Your task to perform on an android device: install app "Contacts" Image 0: 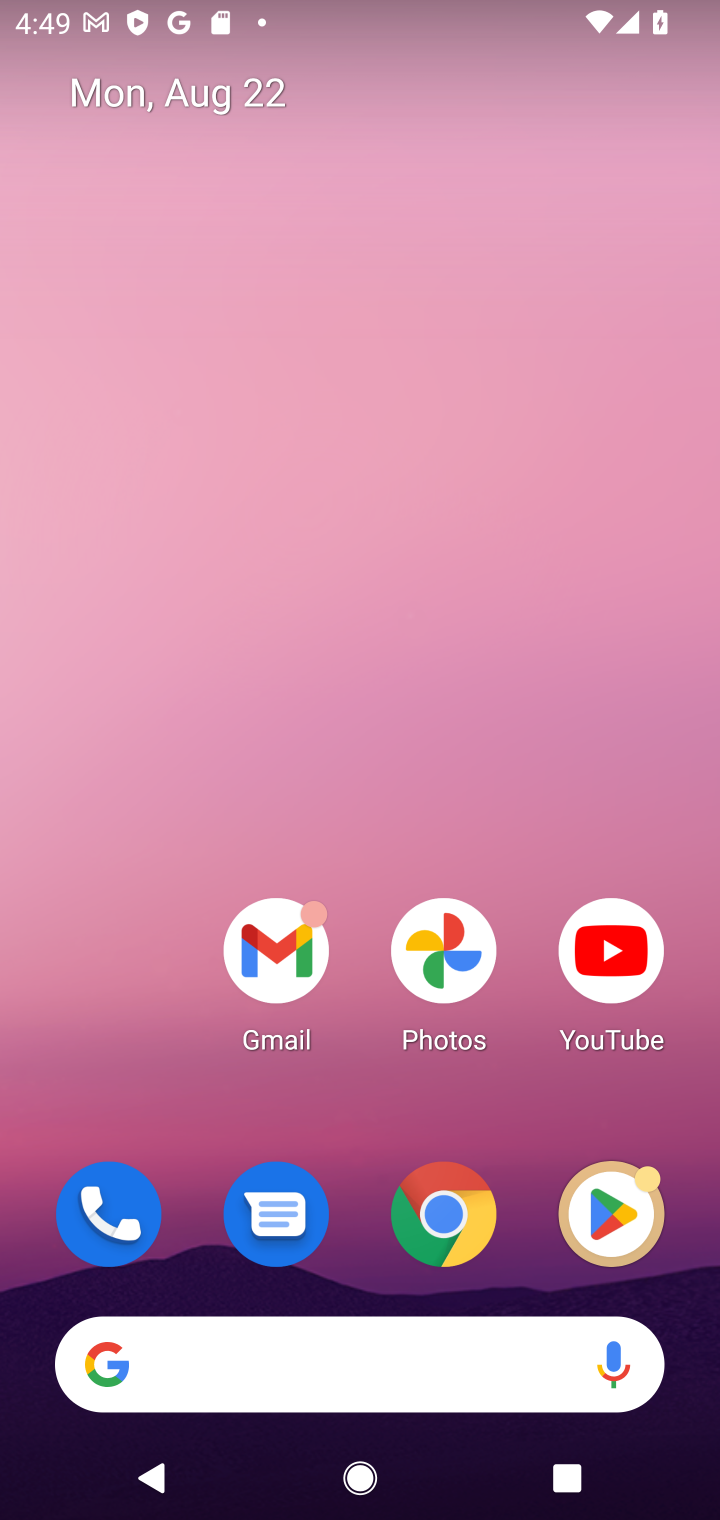
Step 0: click (612, 1219)
Your task to perform on an android device: install app "Contacts" Image 1: 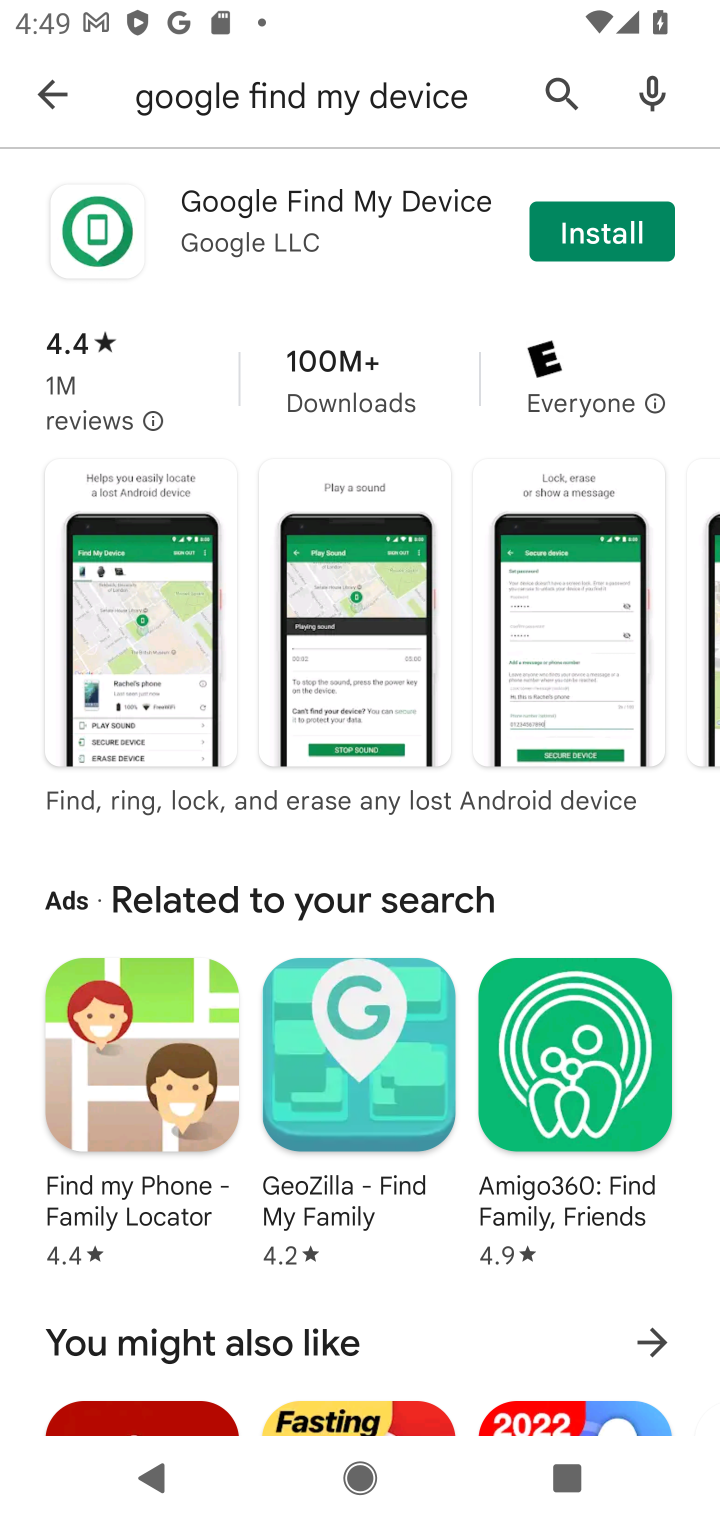
Step 1: click (557, 93)
Your task to perform on an android device: install app "Contacts" Image 2: 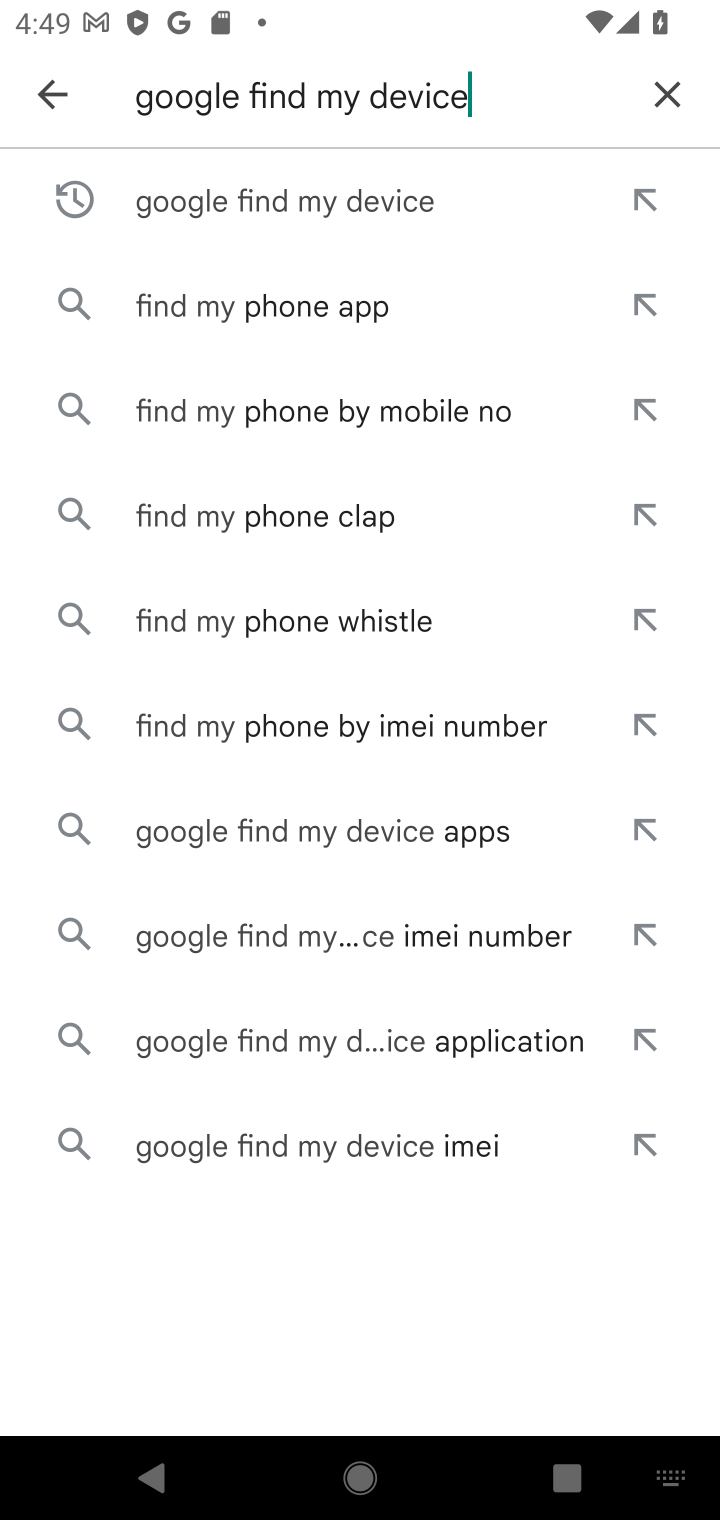
Step 2: click (663, 88)
Your task to perform on an android device: install app "Contacts" Image 3: 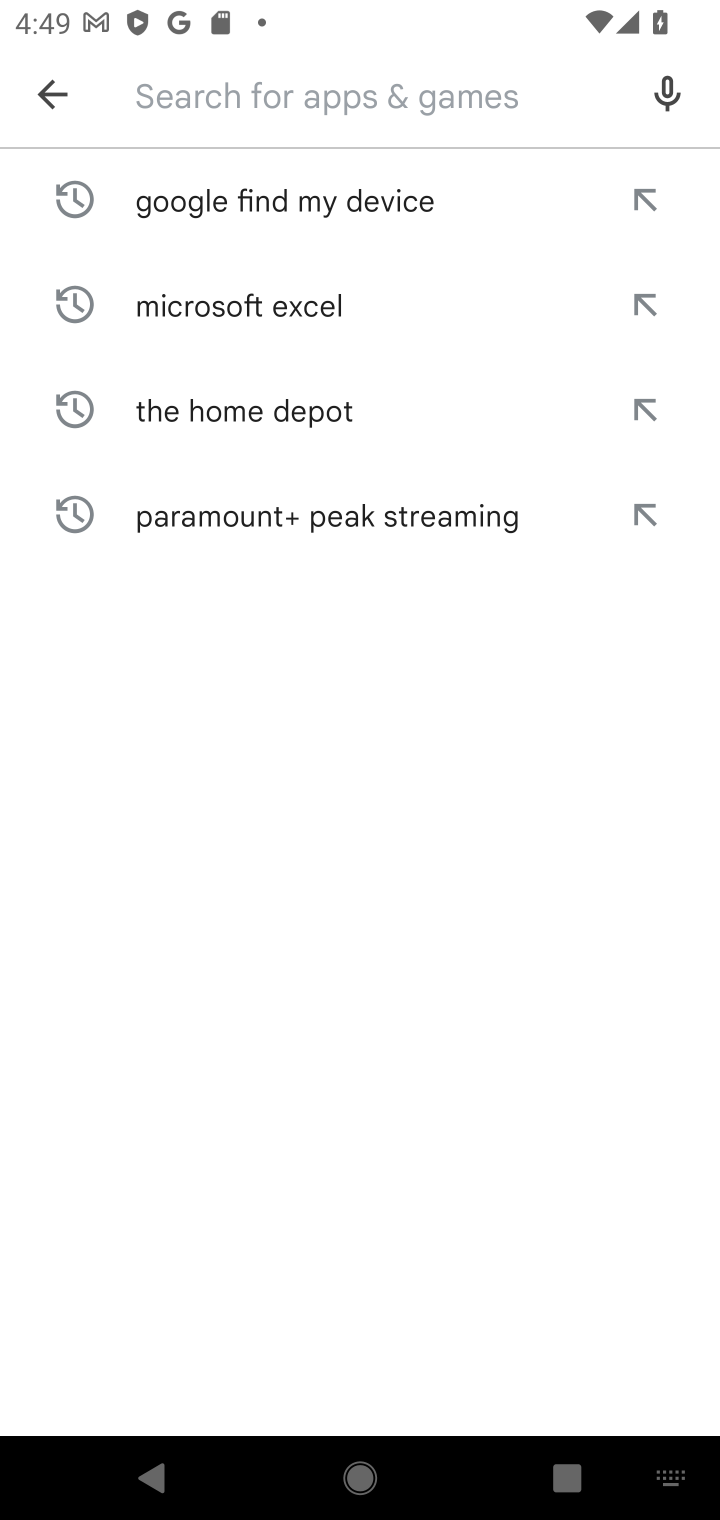
Step 3: type "contacts"
Your task to perform on an android device: install app "Contacts" Image 4: 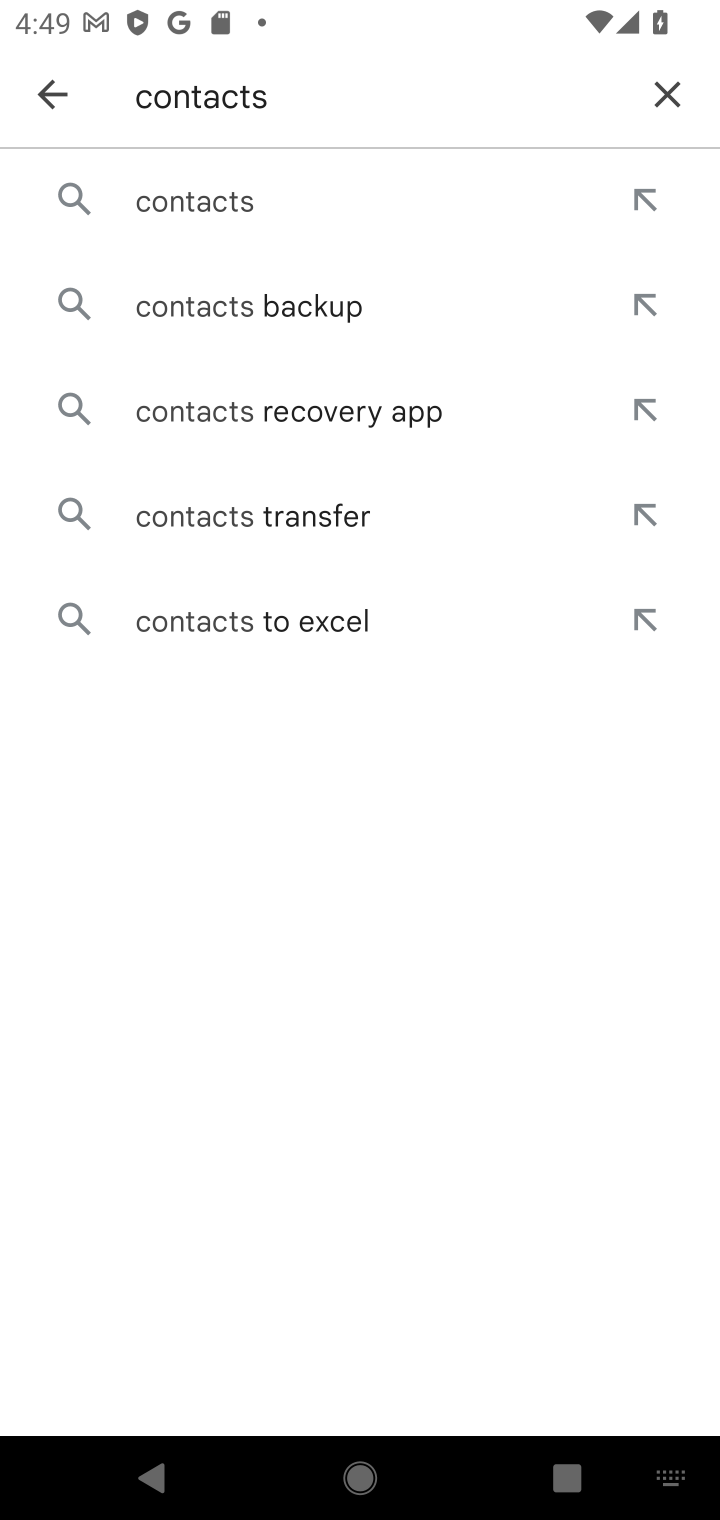
Step 4: click (208, 208)
Your task to perform on an android device: install app "Contacts" Image 5: 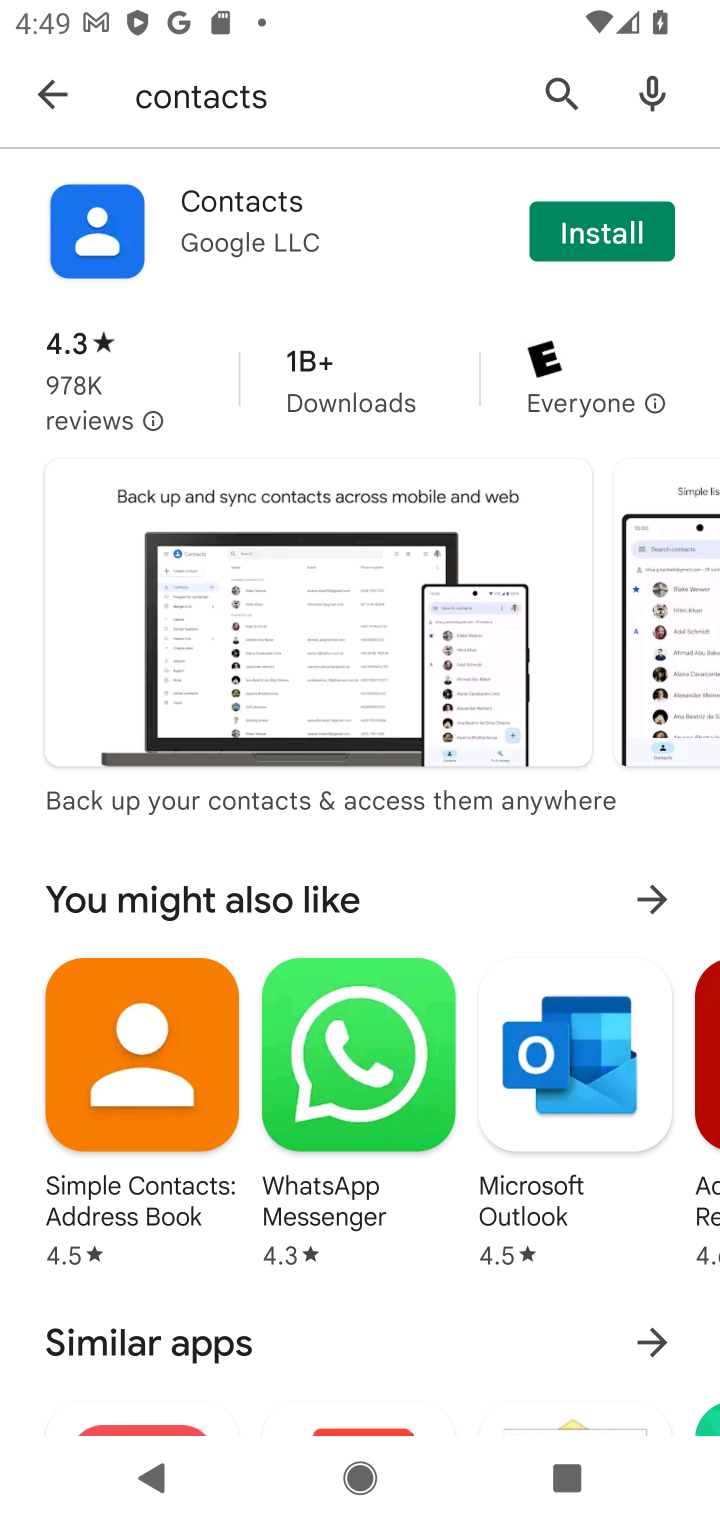
Step 5: click (595, 233)
Your task to perform on an android device: install app "Contacts" Image 6: 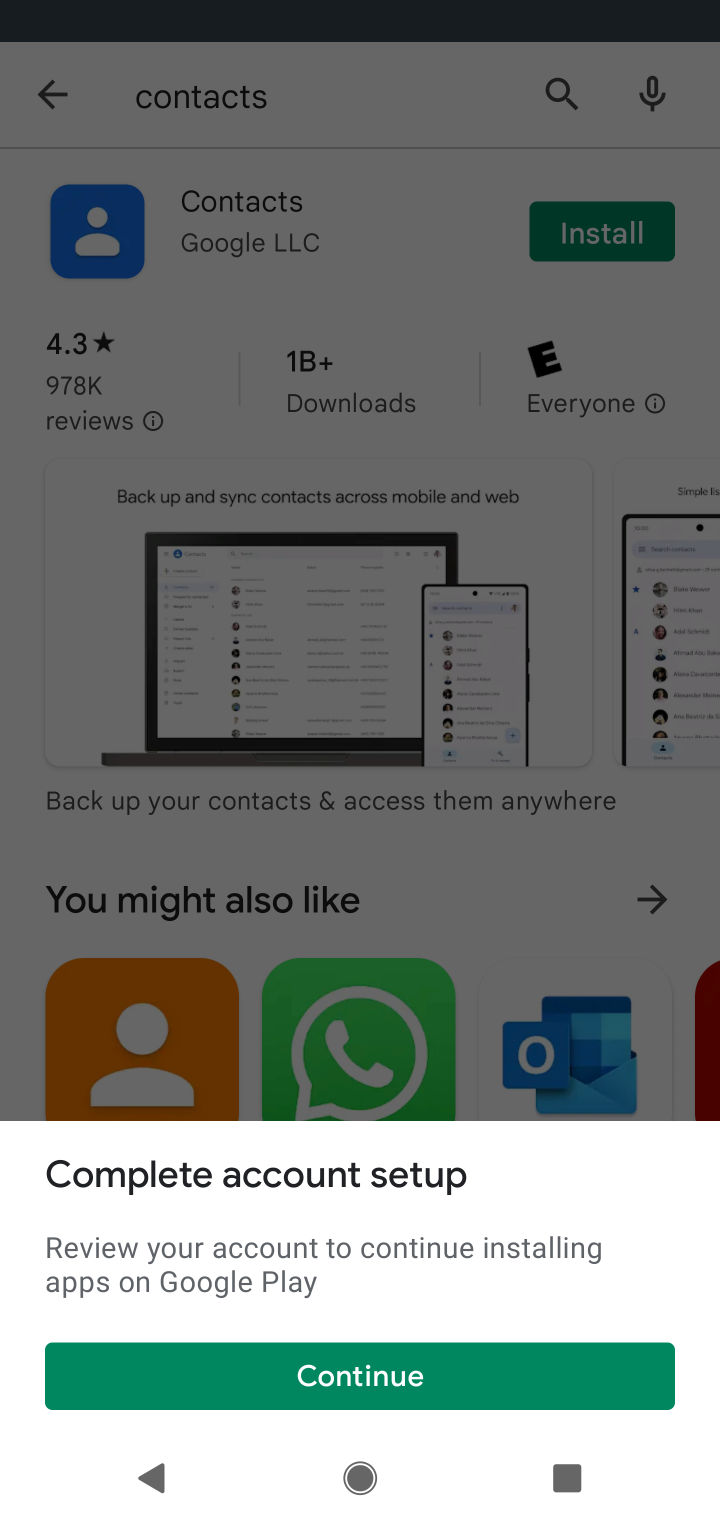
Step 6: click (365, 1392)
Your task to perform on an android device: install app "Contacts" Image 7: 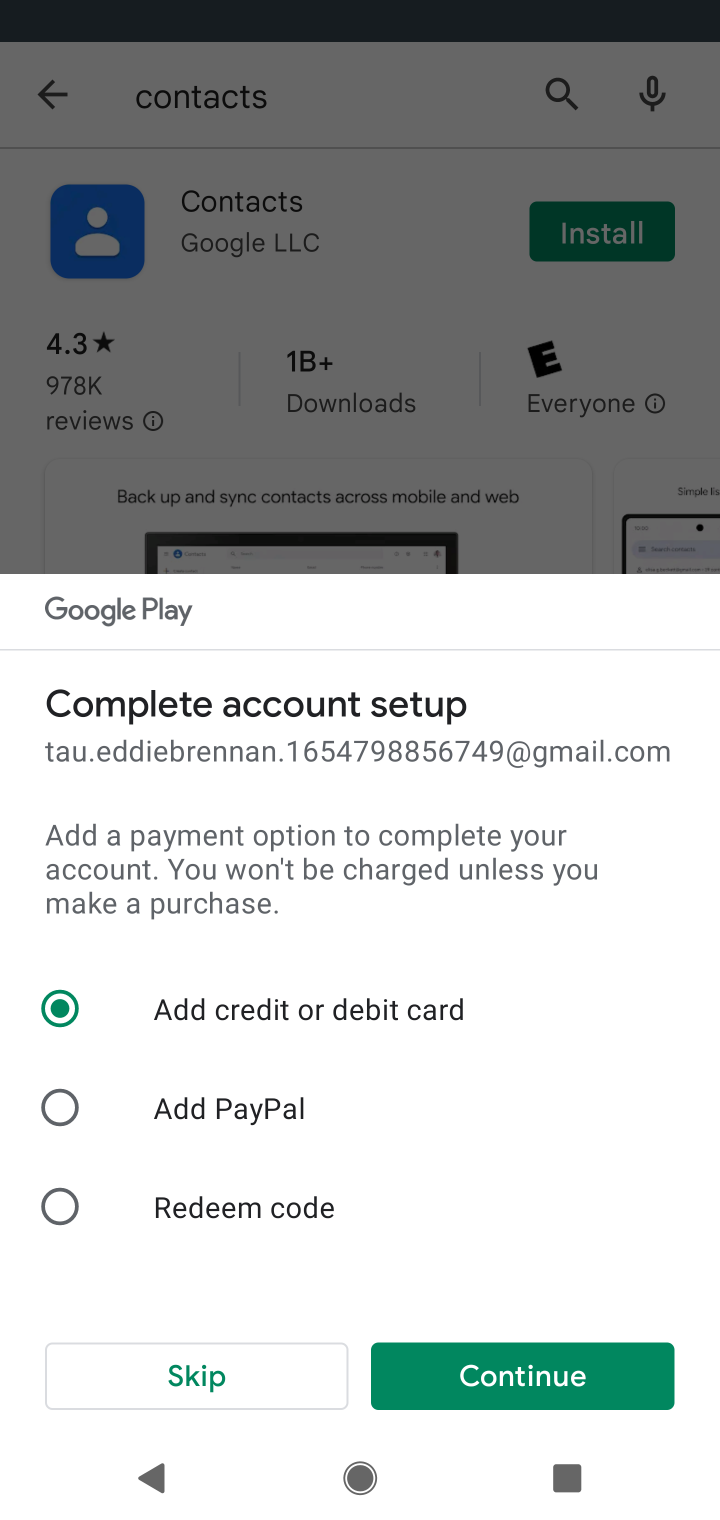
Step 7: click (195, 1377)
Your task to perform on an android device: install app "Contacts" Image 8: 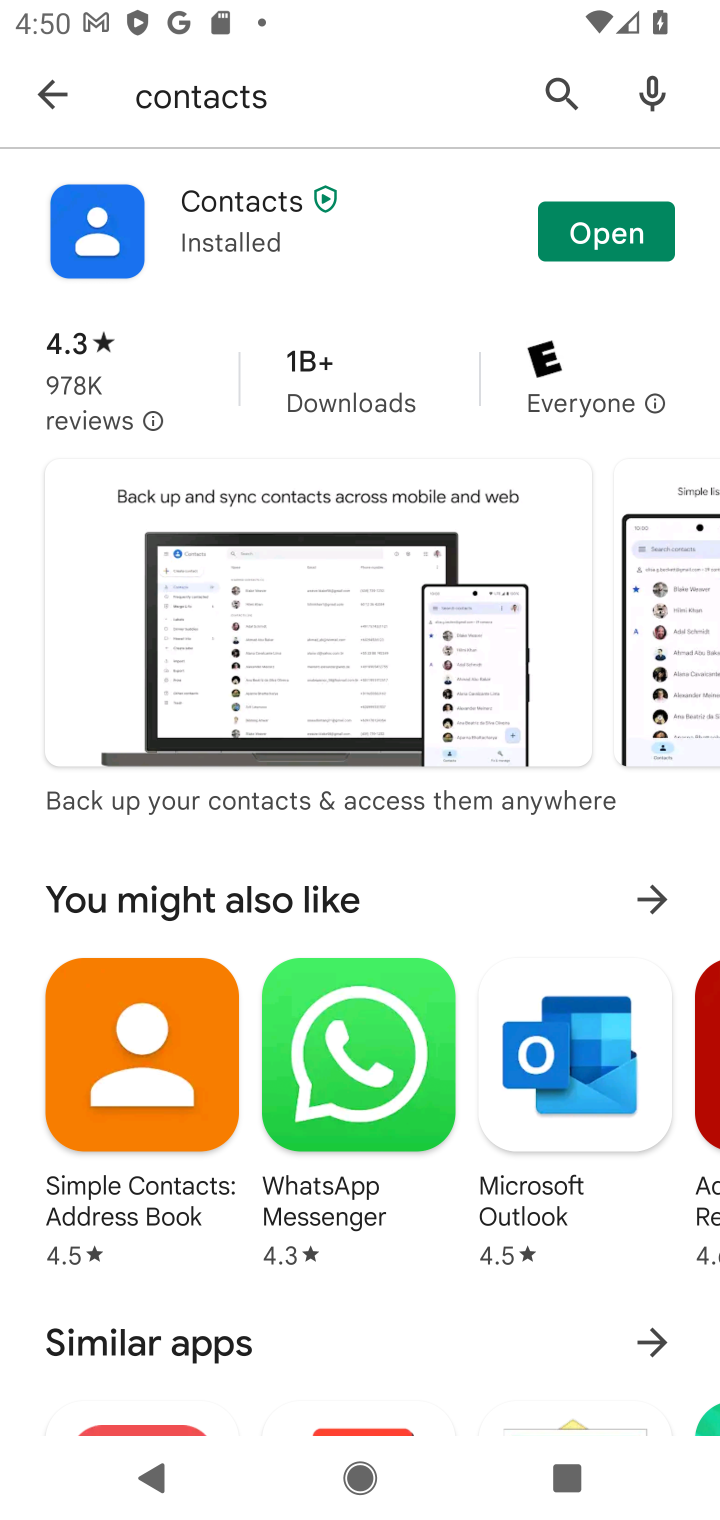
Step 8: task complete